Your task to perform on an android device: turn on wifi Image 0: 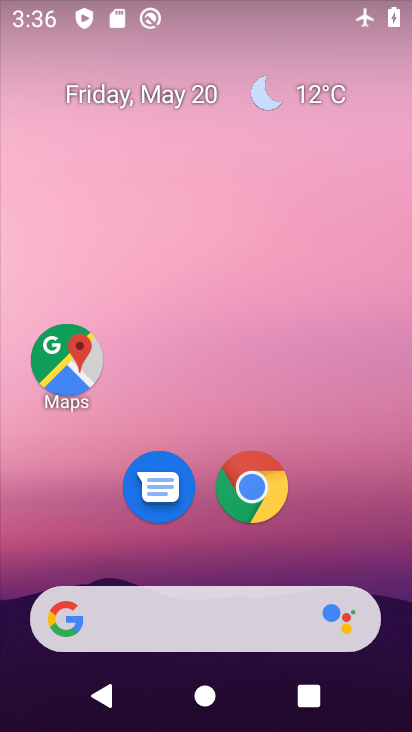
Step 0: drag from (325, 495) to (203, 50)
Your task to perform on an android device: turn on wifi Image 1: 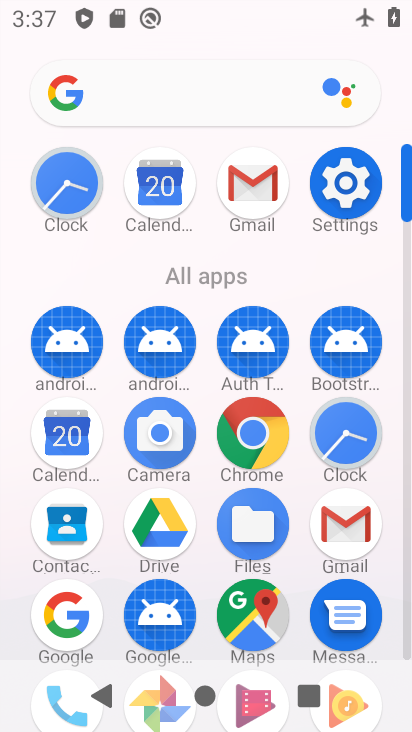
Step 1: click (335, 193)
Your task to perform on an android device: turn on wifi Image 2: 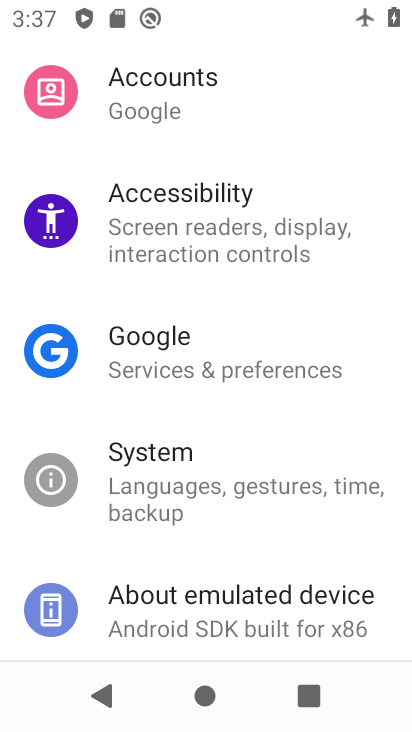
Step 2: drag from (183, 279) to (165, 673)
Your task to perform on an android device: turn on wifi Image 3: 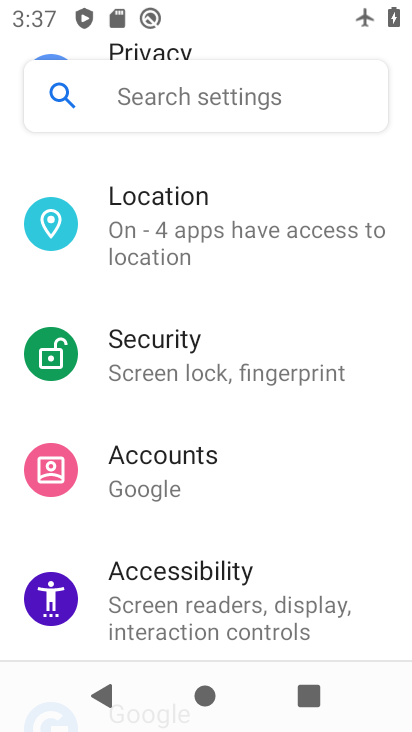
Step 3: drag from (198, 310) to (200, 639)
Your task to perform on an android device: turn on wifi Image 4: 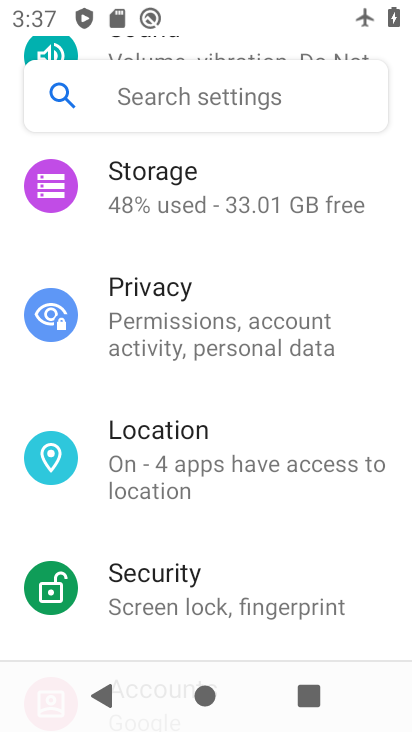
Step 4: drag from (242, 279) to (209, 628)
Your task to perform on an android device: turn on wifi Image 5: 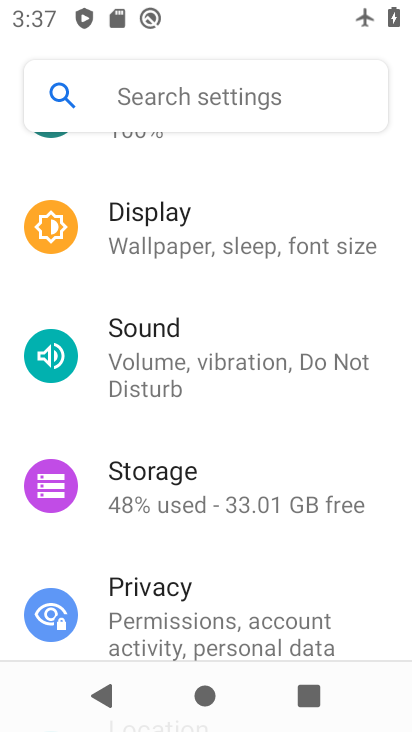
Step 5: drag from (195, 288) to (146, 621)
Your task to perform on an android device: turn on wifi Image 6: 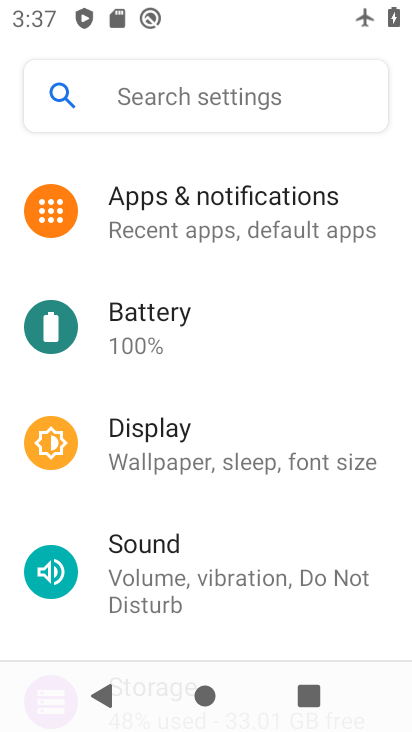
Step 6: drag from (154, 300) to (122, 631)
Your task to perform on an android device: turn on wifi Image 7: 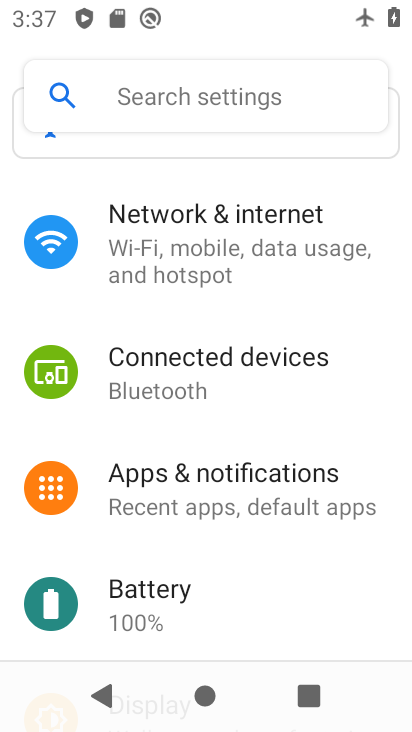
Step 7: click (171, 275)
Your task to perform on an android device: turn on wifi Image 8: 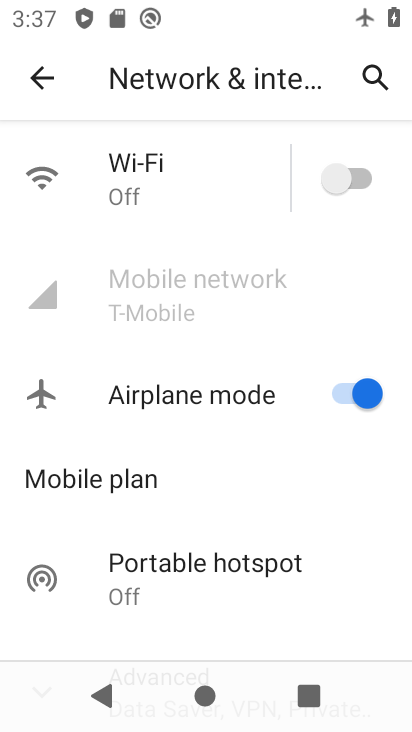
Step 8: click (360, 175)
Your task to perform on an android device: turn on wifi Image 9: 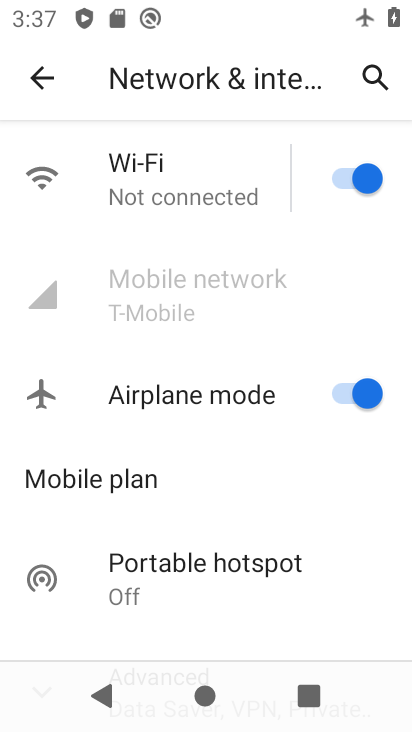
Step 9: task complete